Your task to perform on an android device: Do I have any events this weekend? Image 0: 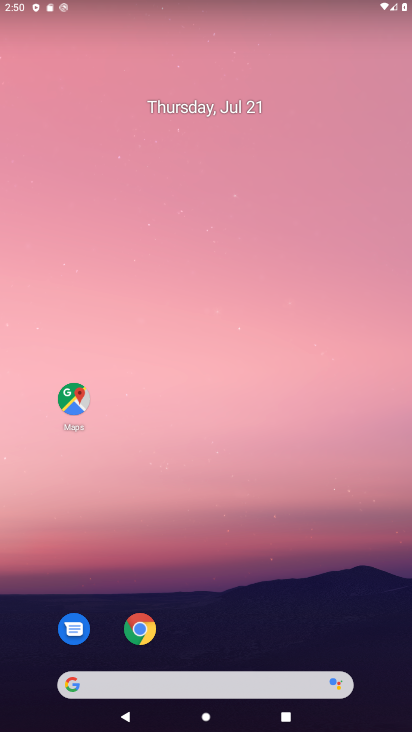
Step 0: press home button
Your task to perform on an android device: Do I have any events this weekend? Image 1: 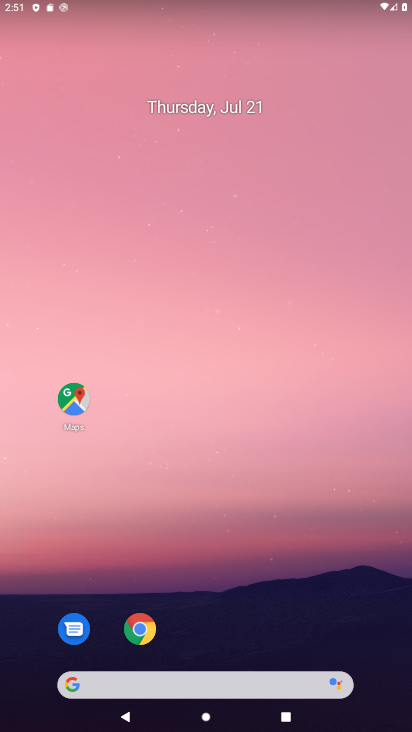
Step 1: drag from (305, 618) to (298, 97)
Your task to perform on an android device: Do I have any events this weekend? Image 2: 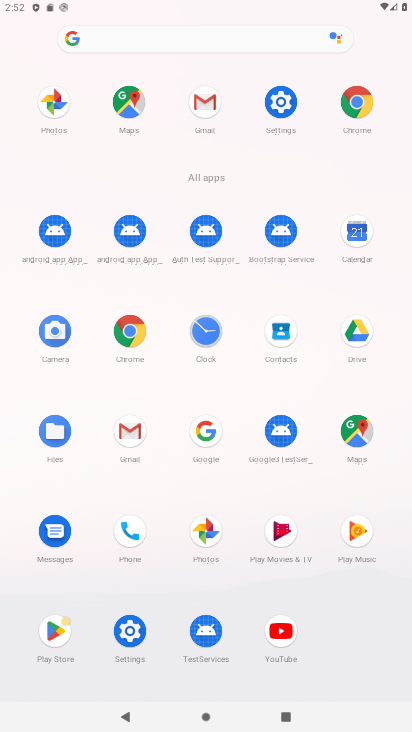
Step 2: click (358, 233)
Your task to perform on an android device: Do I have any events this weekend? Image 3: 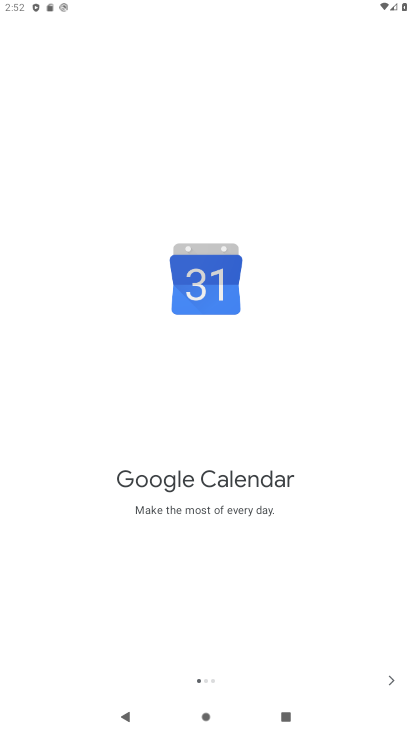
Step 3: click (393, 676)
Your task to perform on an android device: Do I have any events this weekend? Image 4: 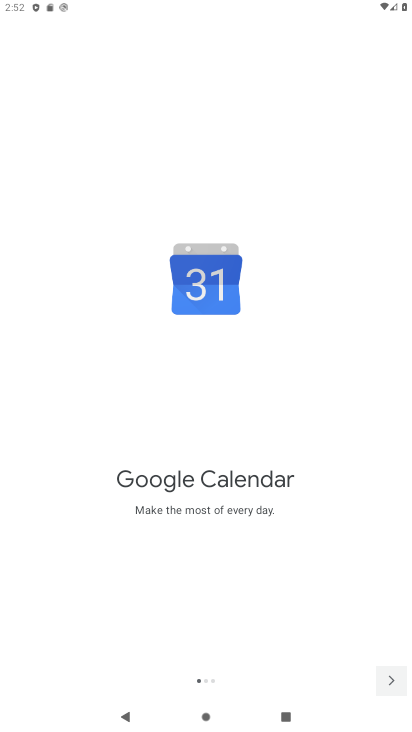
Step 4: click (393, 676)
Your task to perform on an android device: Do I have any events this weekend? Image 5: 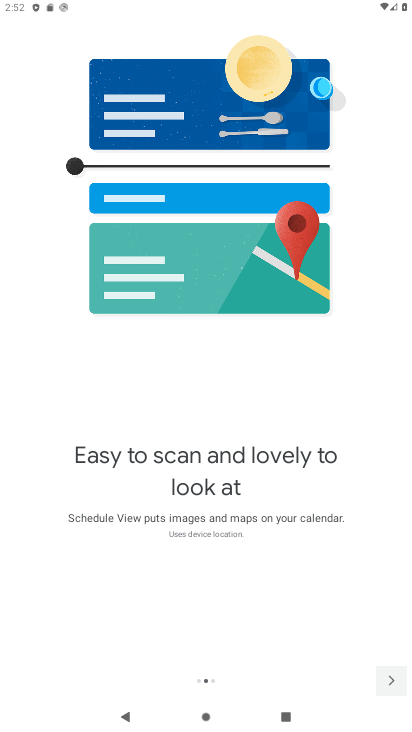
Step 5: click (393, 676)
Your task to perform on an android device: Do I have any events this weekend? Image 6: 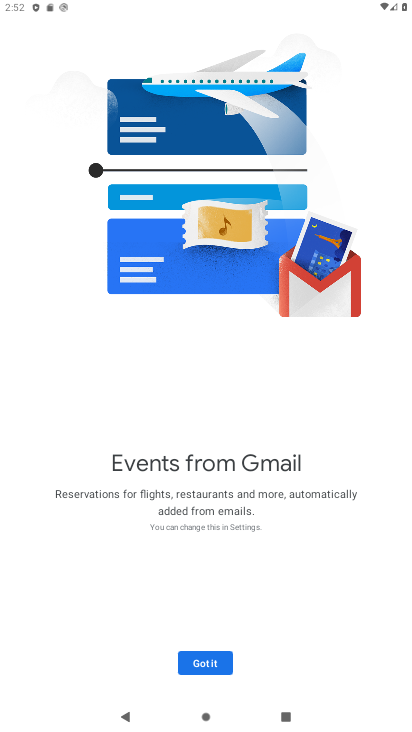
Step 6: click (189, 661)
Your task to perform on an android device: Do I have any events this weekend? Image 7: 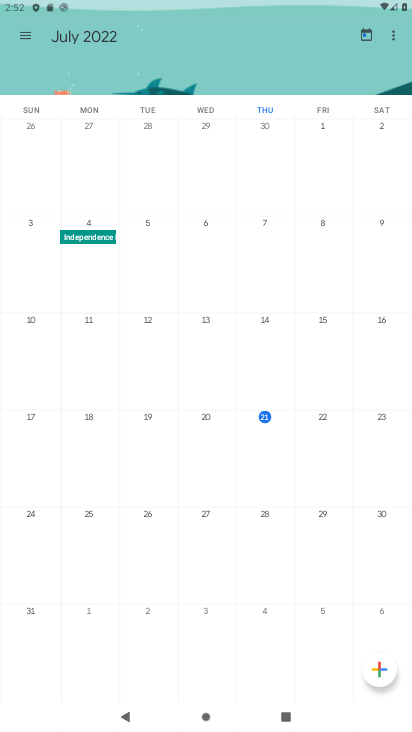
Step 7: click (53, 30)
Your task to perform on an android device: Do I have any events this weekend? Image 8: 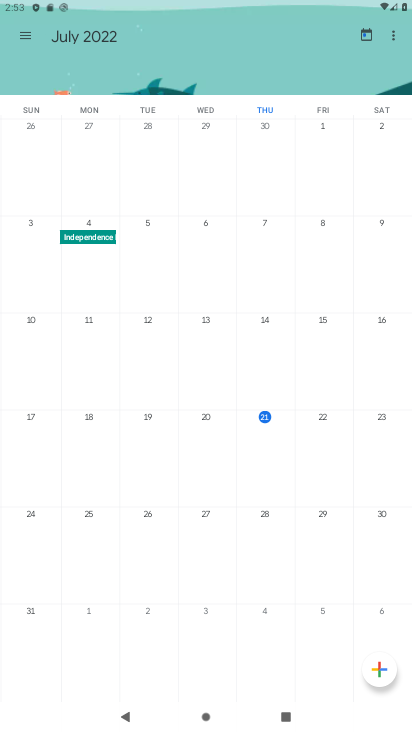
Step 8: click (75, 41)
Your task to perform on an android device: Do I have any events this weekend? Image 9: 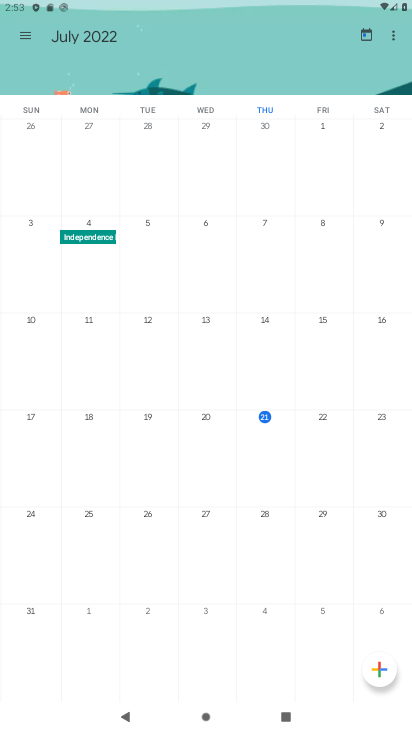
Step 9: click (30, 31)
Your task to perform on an android device: Do I have any events this weekend? Image 10: 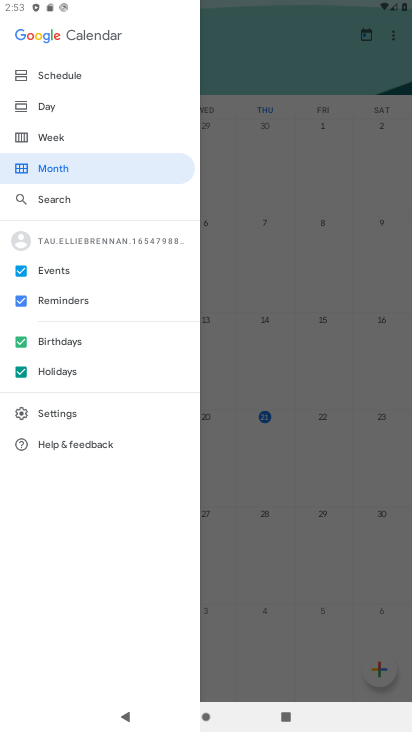
Step 10: click (57, 77)
Your task to perform on an android device: Do I have any events this weekend? Image 11: 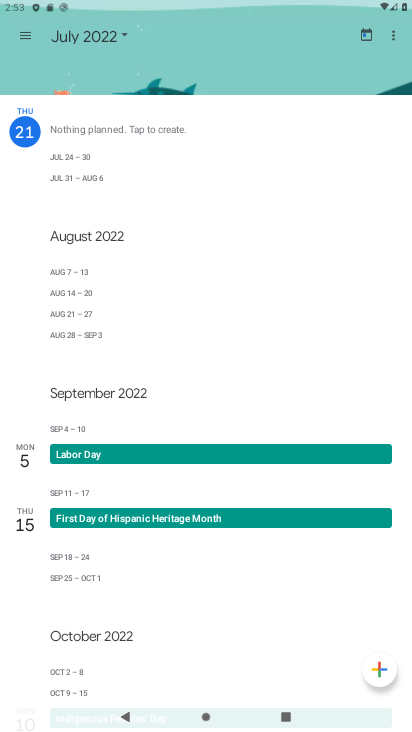
Step 11: task complete